Your task to perform on an android device: Open Maps and search for coffee Image 0: 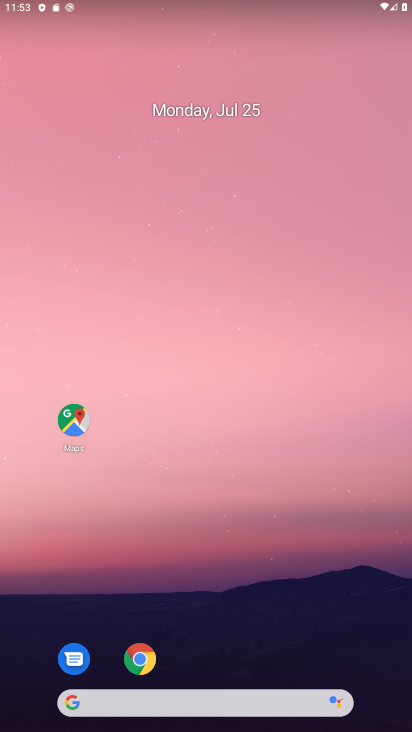
Step 0: drag from (210, 585) to (246, 230)
Your task to perform on an android device: Open Maps and search for coffee Image 1: 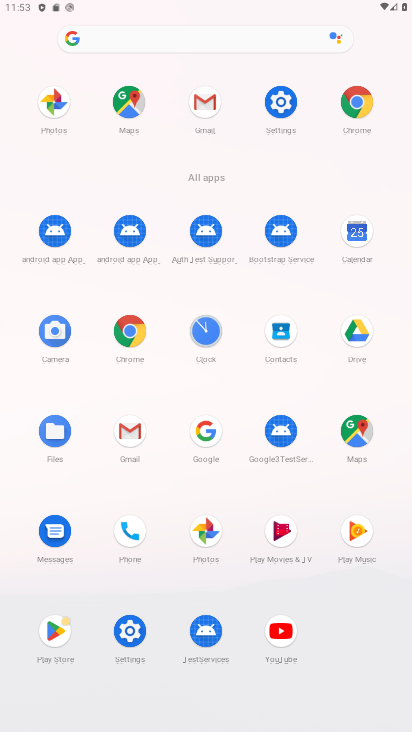
Step 1: click (352, 441)
Your task to perform on an android device: Open Maps and search for coffee Image 2: 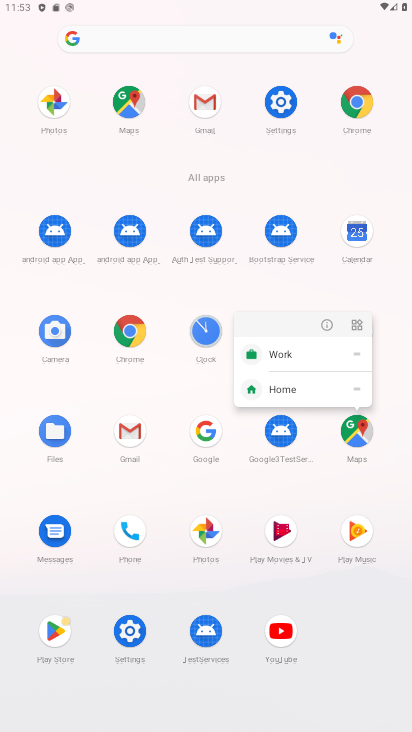
Step 2: click (323, 323)
Your task to perform on an android device: Open Maps and search for coffee Image 3: 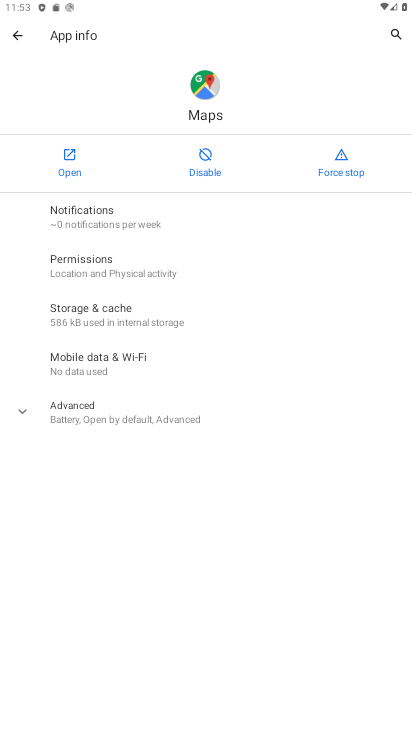
Step 3: click (50, 163)
Your task to perform on an android device: Open Maps and search for coffee Image 4: 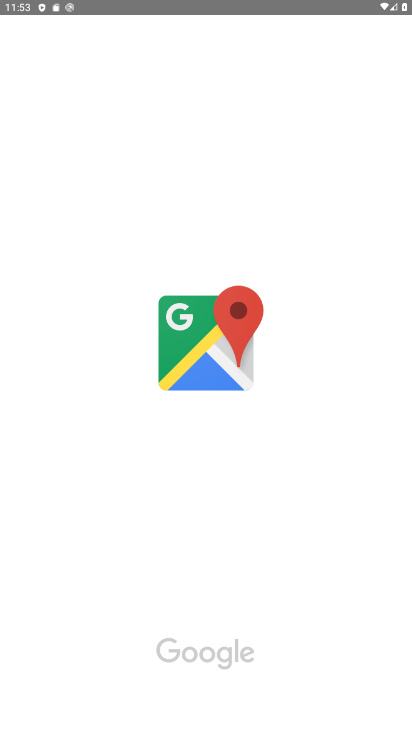
Step 4: drag from (245, 558) to (254, 288)
Your task to perform on an android device: Open Maps and search for coffee Image 5: 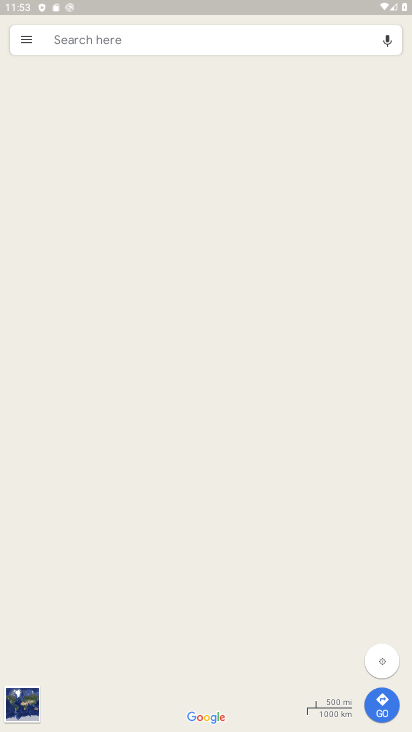
Step 5: click (80, 45)
Your task to perform on an android device: Open Maps and search for coffee Image 6: 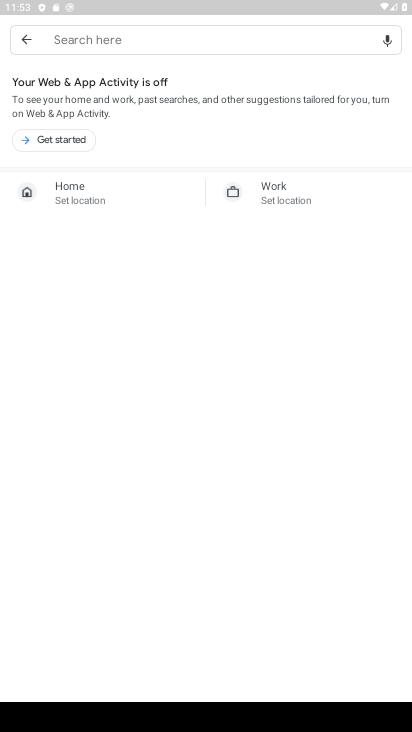
Step 6: click (103, 41)
Your task to perform on an android device: Open Maps and search for coffee Image 7: 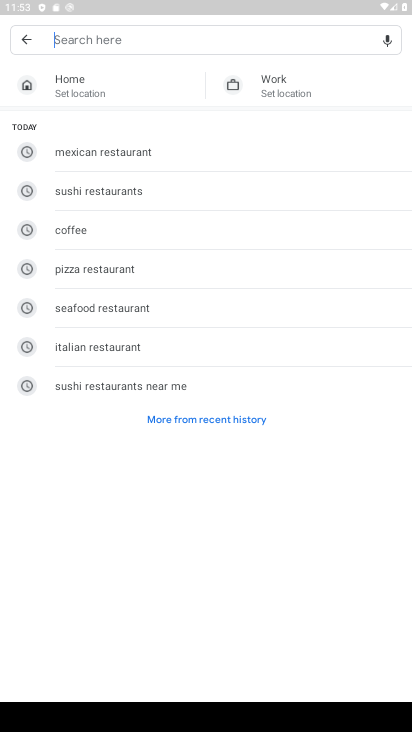
Step 7: click (39, 245)
Your task to perform on an android device: Open Maps and search for coffee Image 8: 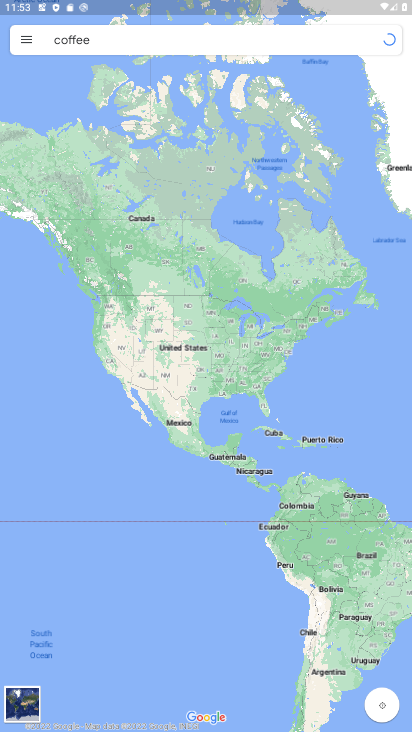
Step 8: task complete